Your task to perform on an android device: move a message to another label in the gmail app Image 0: 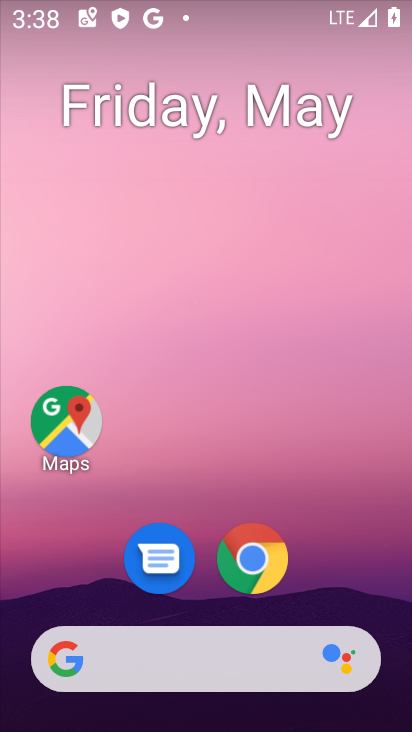
Step 0: press home button
Your task to perform on an android device: move a message to another label in the gmail app Image 1: 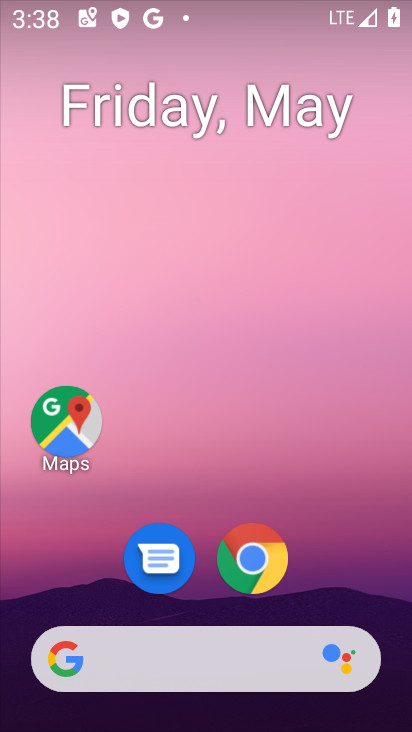
Step 1: drag from (249, 616) to (328, 178)
Your task to perform on an android device: move a message to another label in the gmail app Image 2: 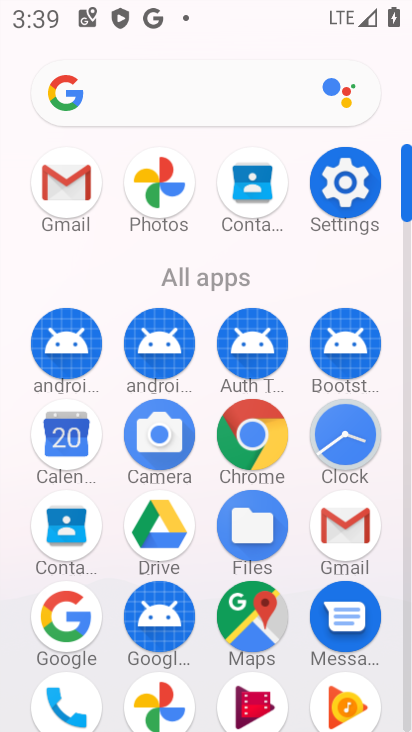
Step 2: click (333, 535)
Your task to perform on an android device: move a message to another label in the gmail app Image 3: 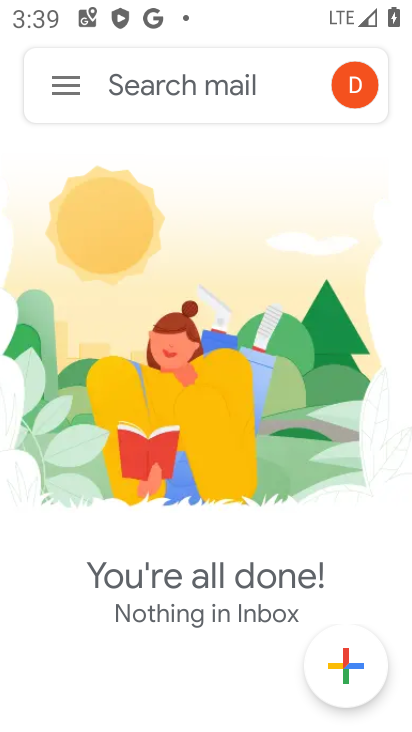
Step 3: task complete